Your task to perform on an android device: check out phone information Image 0: 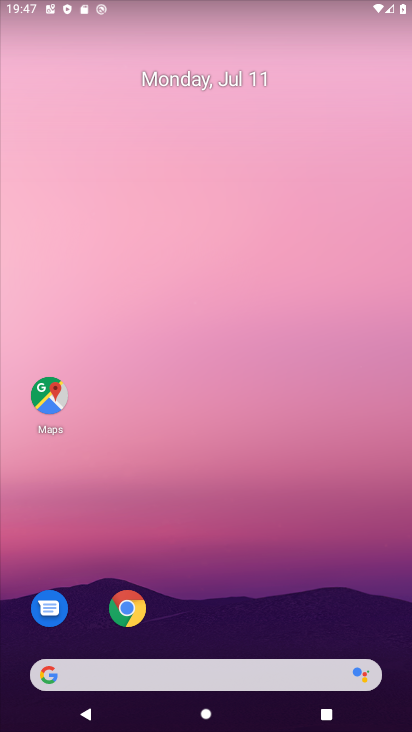
Step 0: drag from (266, 628) to (241, 122)
Your task to perform on an android device: check out phone information Image 1: 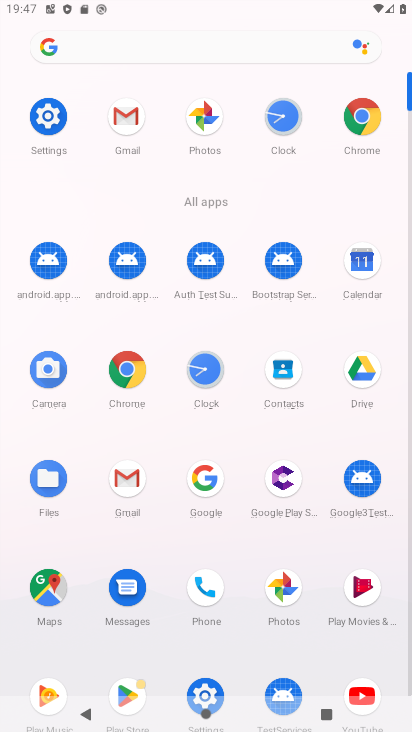
Step 1: click (57, 117)
Your task to perform on an android device: check out phone information Image 2: 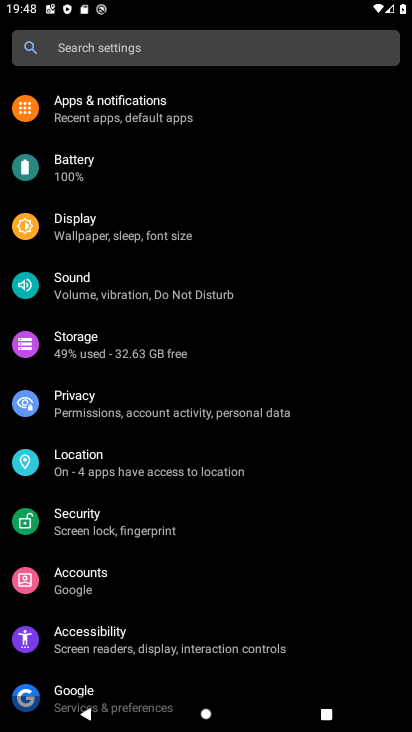
Step 2: drag from (217, 592) to (234, 323)
Your task to perform on an android device: check out phone information Image 3: 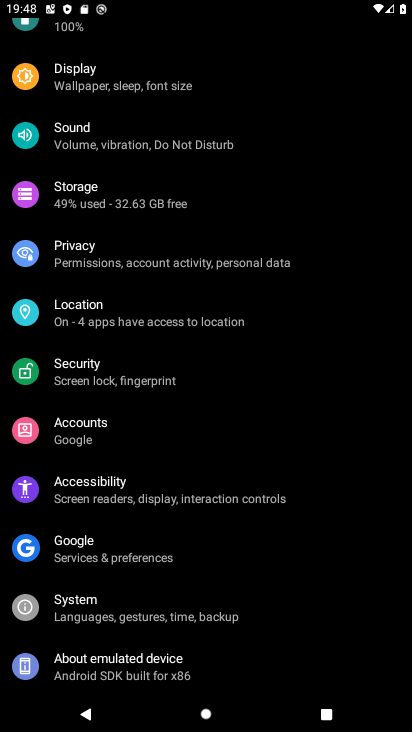
Step 3: click (173, 672)
Your task to perform on an android device: check out phone information Image 4: 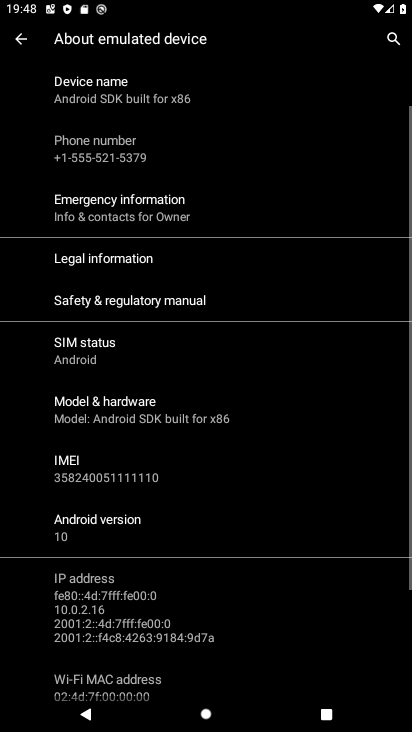
Step 4: task complete